Your task to perform on an android device: Open Yahoo.com Image 0: 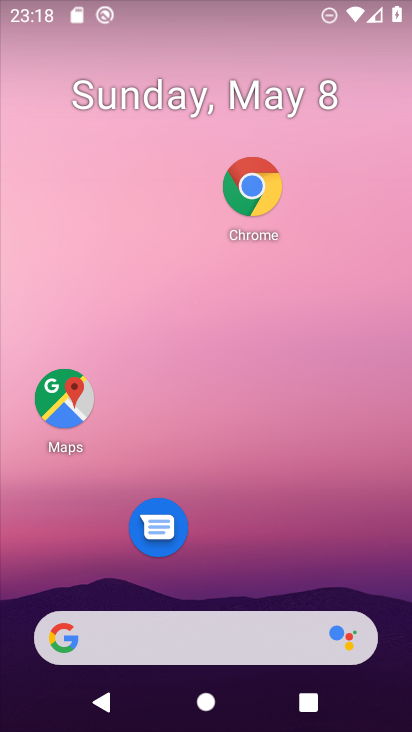
Step 0: drag from (272, 380) to (272, 286)
Your task to perform on an android device: Open Yahoo.com Image 1: 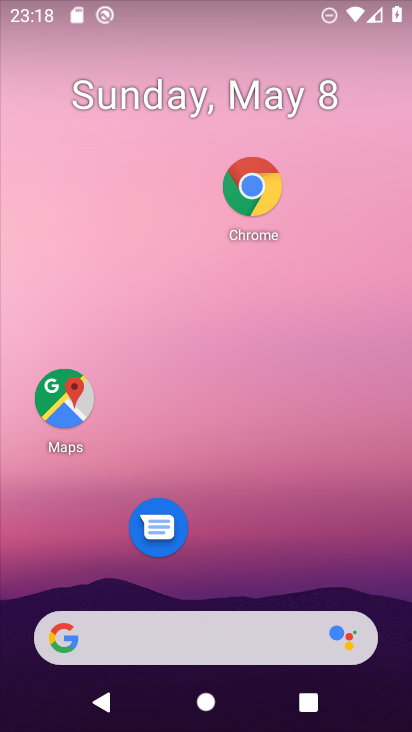
Step 1: drag from (305, 578) to (368, 252)
Your task to perform on an android device: Open Yahoo.com Image 2: 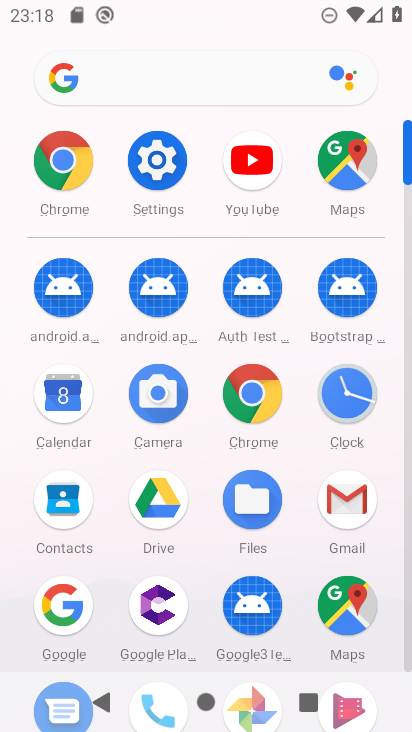
Step 2: click (49, 156)
Your task to perform on an android device: Open Yahoo.com Image 3: 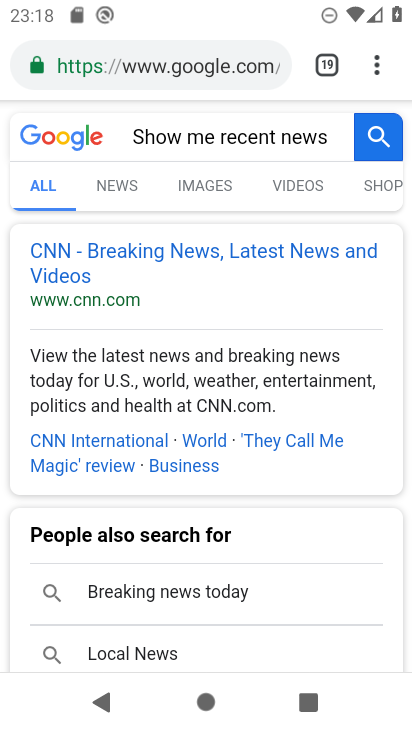
Step 3: click (368, 61)
Your task to perform on an android device: Open Yahoo.com Image 4: 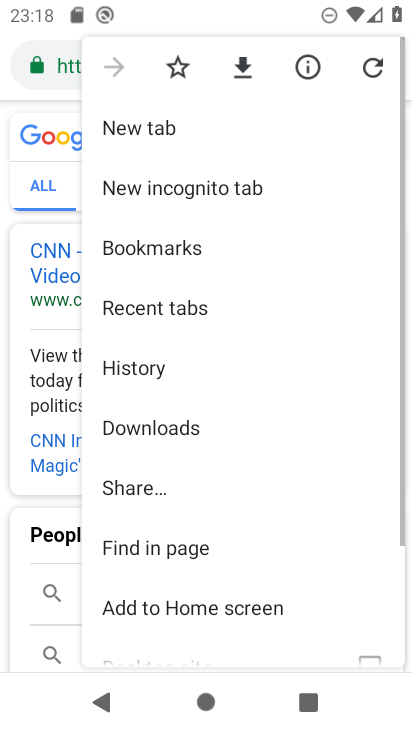
Step 4: click (136, 124)
Your task to perform on an android device: Open Yahoo.com Image 5: 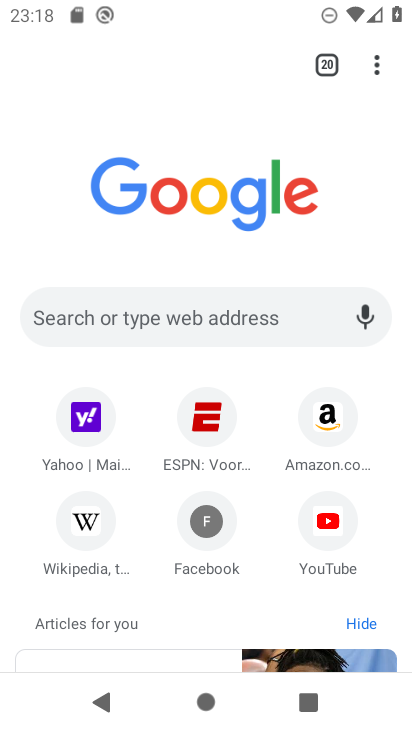
Step 5: click (88, 433)
Your task to perform on an android device: Open Yahoo.com Image 6: 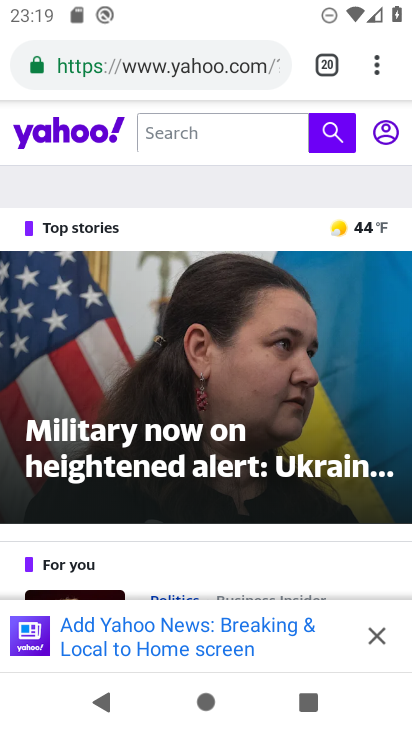
Step 6: task complete